Your task to perform on an android device: open a bookmark in the chrome app Image 0: 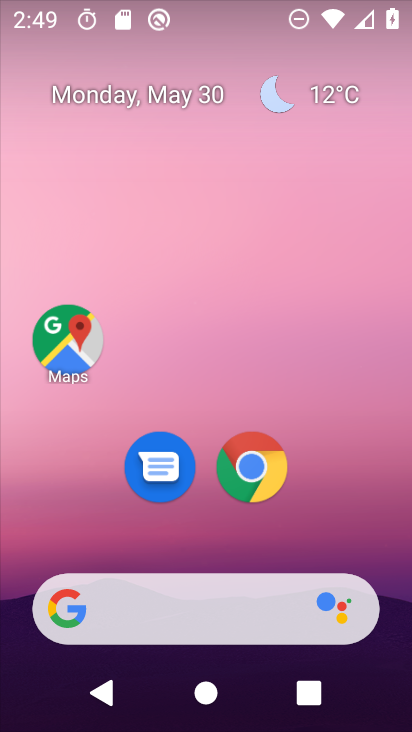
Step 0: click (252, 476)
Your task to perform on an android device: open a bookmark in the chrome app Image 1: 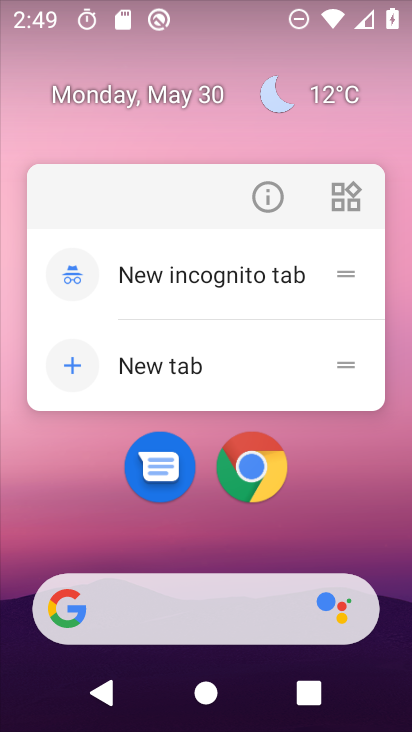
Step 1: click (254, 471)
Your task to perform on an android device: open a bookmark in the chrome app Image 2: 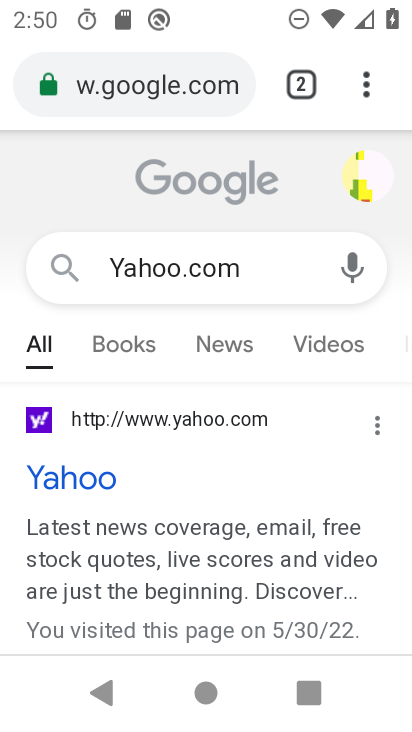
Step 2: click (366, 79)
Your task to perform on an android device: open a bookmark in the chrome app Image 3: 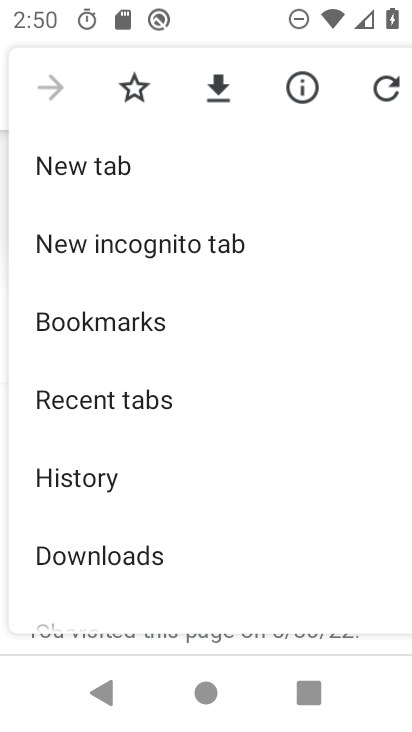
Step 3: click (113, 322)
Your task to perform on an android device: open a bookmark in the chrome app Image 4: 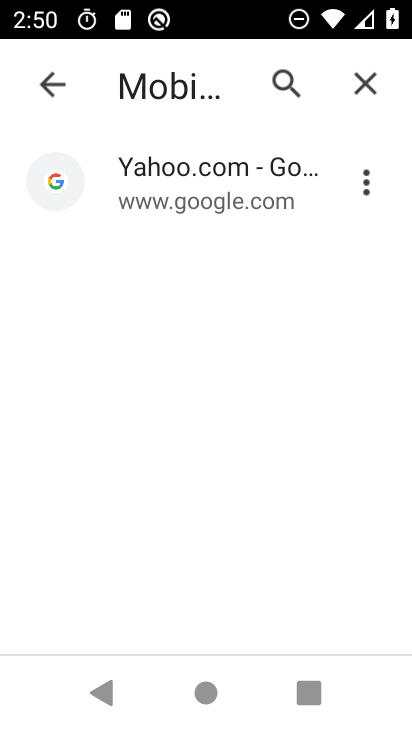
Step 4: click (225, 176)
Your task to perform on an android device: open a bookmark in the chrome app Image 5: 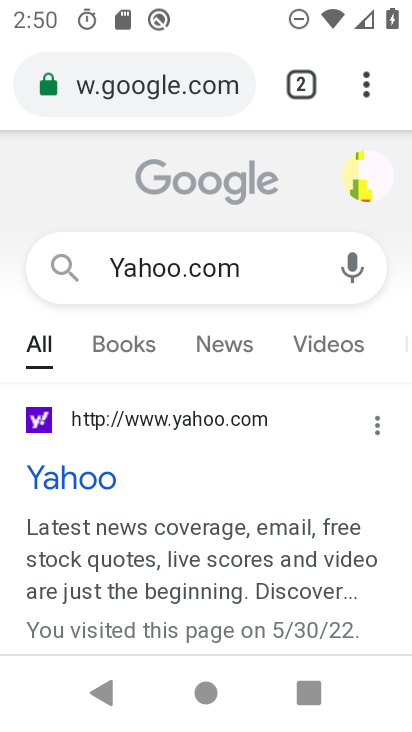
Step 5: task complete